Your task to perform on an android device: Open Chrome and go to settings Image 0: 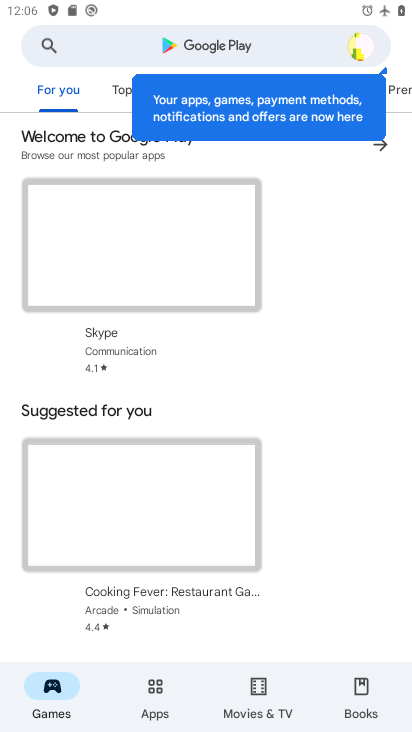
Step 0: press home button
Your task to perform on an android device: Open Chrome and go to settings Image 1: 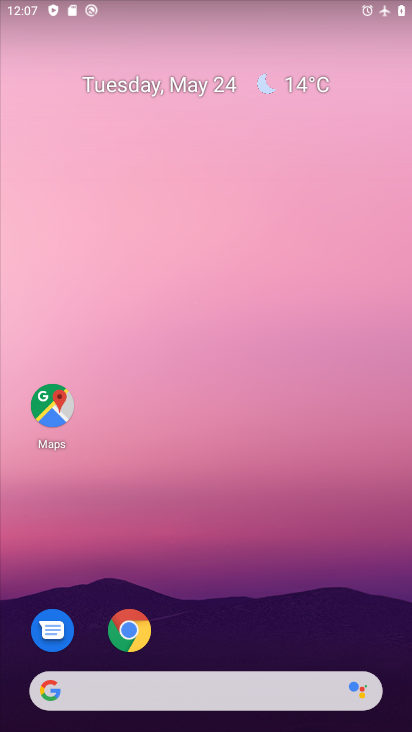
Step 1: drag from (318, 623) to (255, 175)
Your task to perform on an android device: Open Chrome and go to settings Image 2: 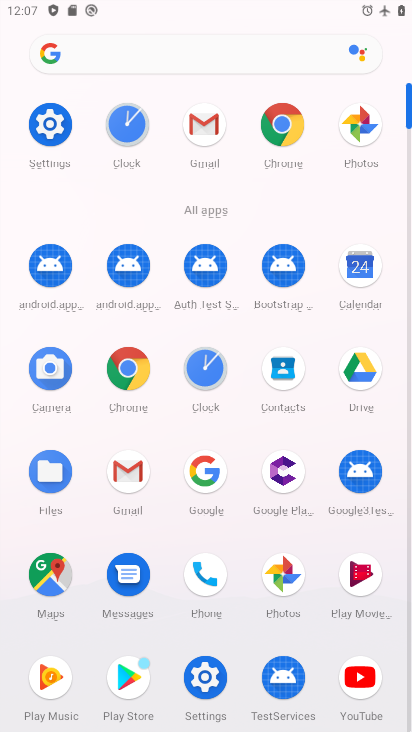
Step 2: click (129, 387)
Your task to perform on an android device: Open Chrome and go to settings Image 3: 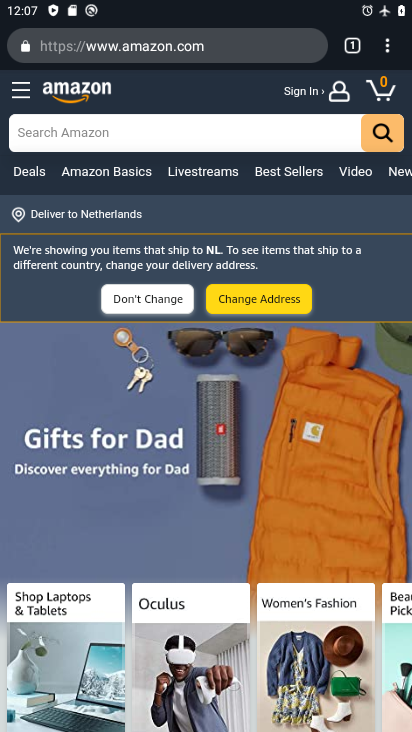
Step 3: task complete